Your task to perform on an android device: turn on notifications settings in the gmail app Image 0: 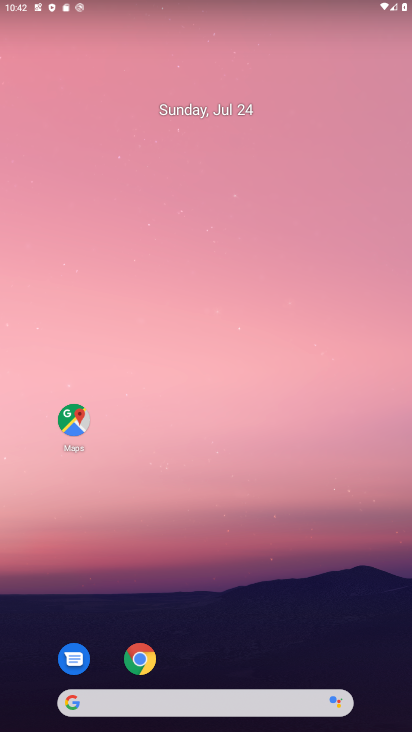
Step 0: drag from (185, 697) to (325, 13)
Your task to perform on an android device: turn on notifications settings in the gmail app Image 1: 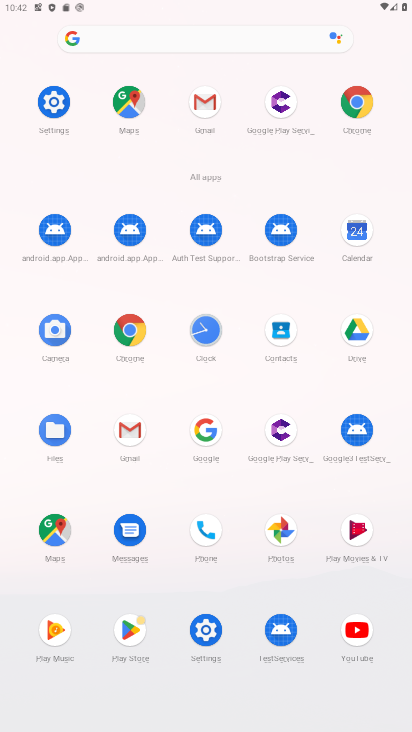
Step 1: click (205, 102)
Your task to perform on an android device: turn on notifications settings in the gmail app Image 2: 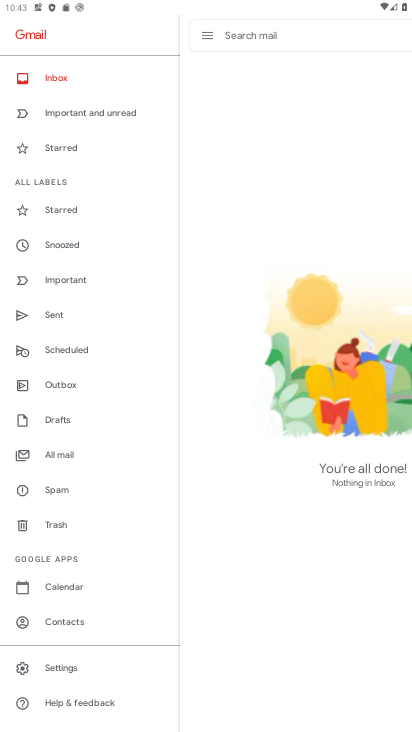
Step 2: click (55, 668)
Your task to perform on an android device: turn on notifications settings in the gmail app Image 3: 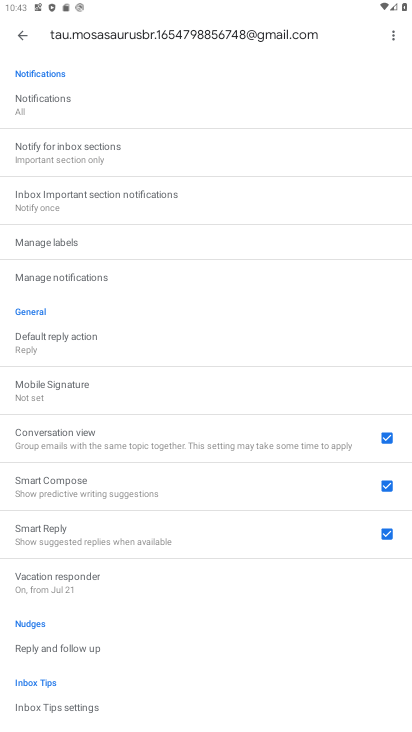
Step 3: click (55, 279)
Your task to perform on an android device: turn on notifications settings in the gmail app Image 4: 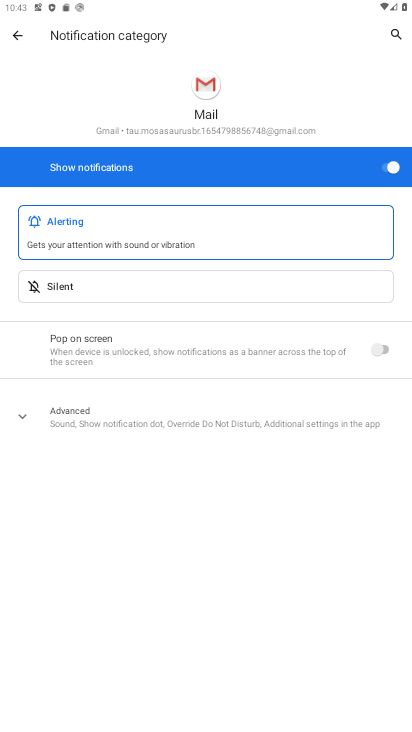
Step 4: task complete